Your task to perform on an android device: Open Android settings Image 0: 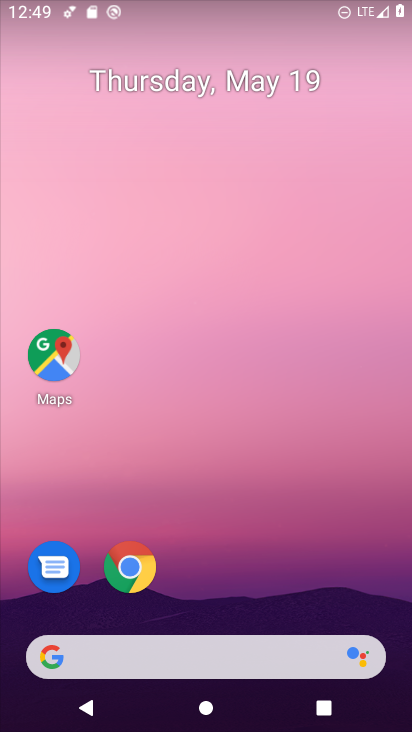
Step 0: drag from (251, 536) to (211, 45)
Your task to perform on an android device: Open Android settings Image 1: 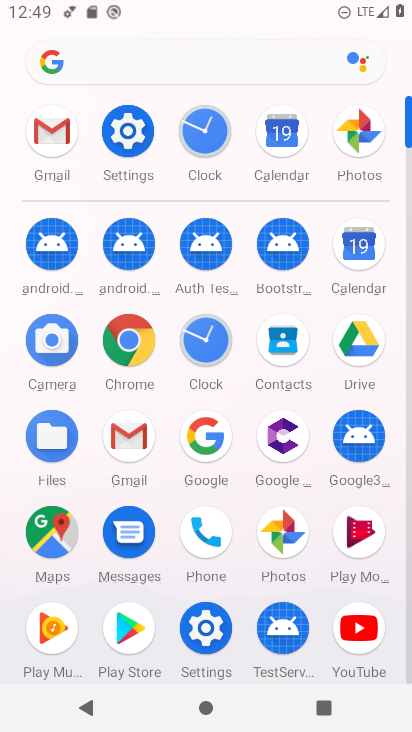
Step 1: click (132, 144)
Your task to perform on an android device: Open Android settings Image 2: 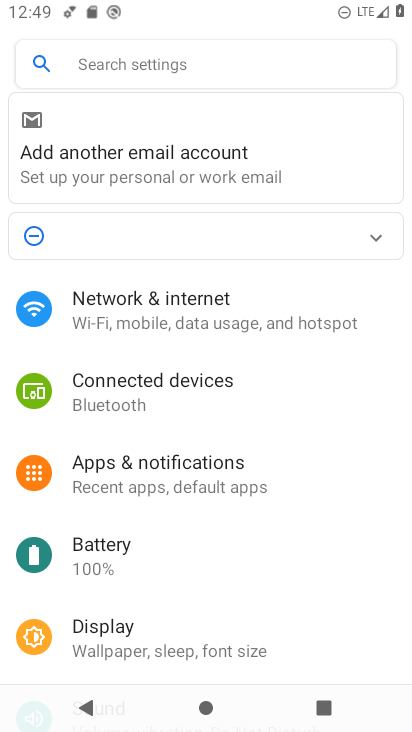
Step 2: drag from (228, 551) to (243, 136)
Your task to perform on an android device: Open Android settings Image 3: 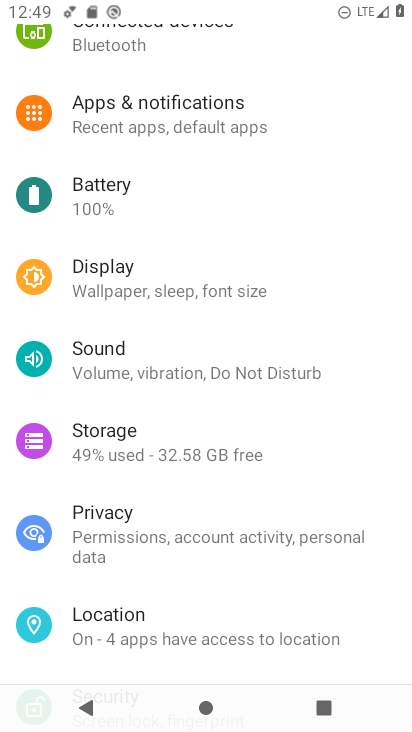
Step 3: drag from (233, 565) to (215, 126)
Your task to perform on an android device: Open Android settings Image 4: 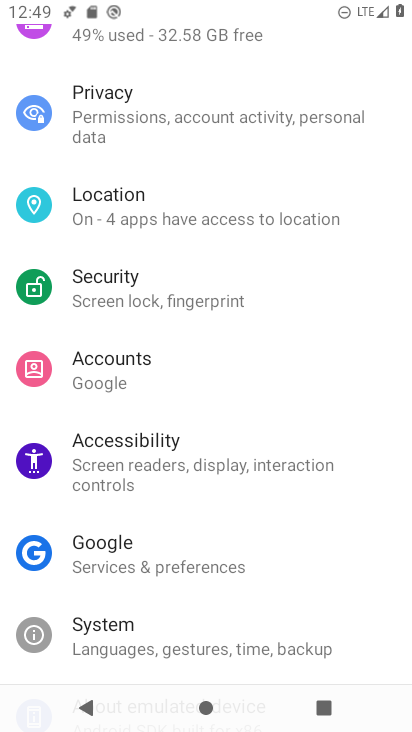
Step 4: drag from (192, 476) to (195, 178)
Your task to perform on an android device: Open Android settings Image 5: 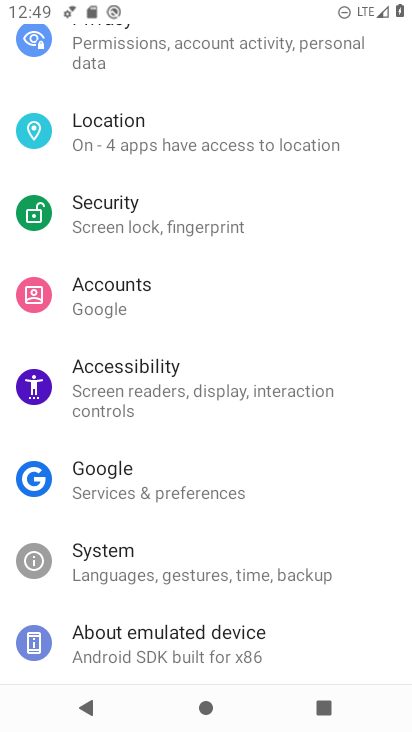
Step 5: click (158, 637)
Your task to perform on an android device: Open Android settings Image 6: 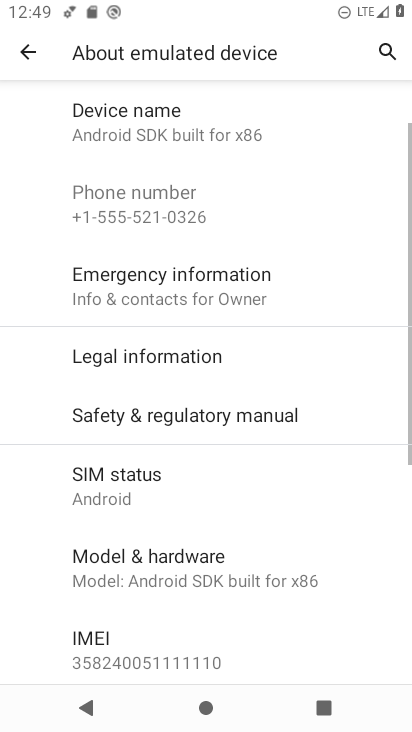
Step 6: task complete